Your task to perform on an android device: Show me recent news Image 0: 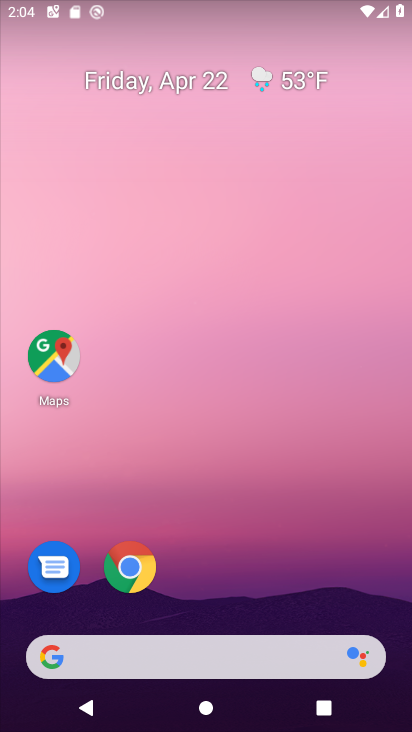
Step 0: click (146, 648)
Your task to perform on an android device: Show me recent news Image 1: 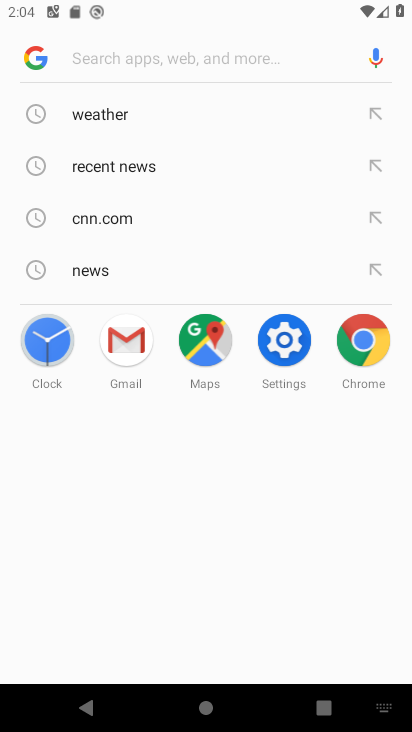
Step 1: click (99, 160)
Your task to perform on an android device: Show me recent news Image 2: 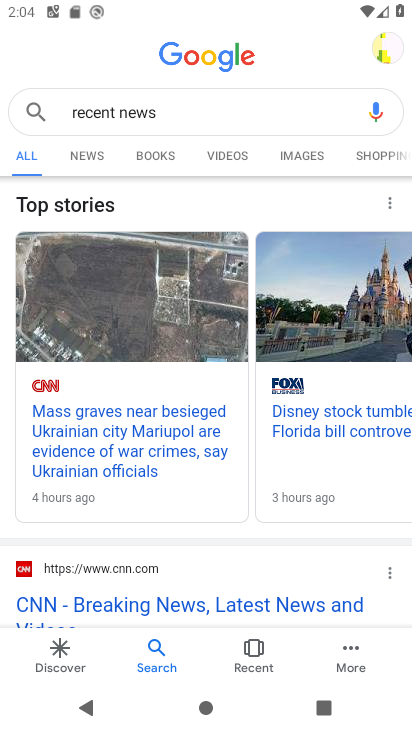
Step 2: task complete